Your task to perform on an android device: turn pop-ups on in chrome Image 0: 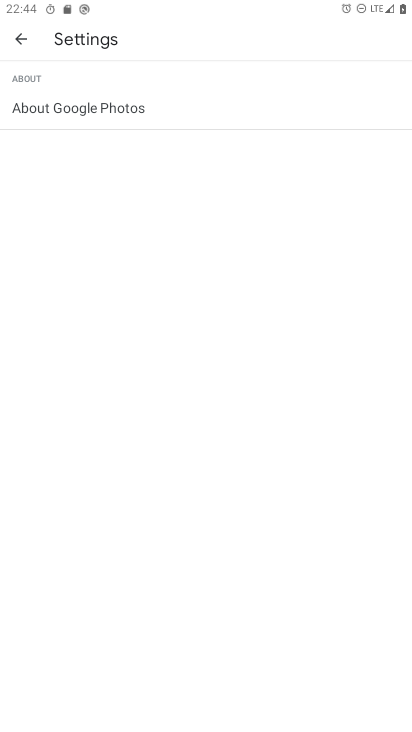
Step 0: drag from (277, 711) to (202, 143)
Your task to perform on an android device: turn pop-ups on in chrome Image 1: 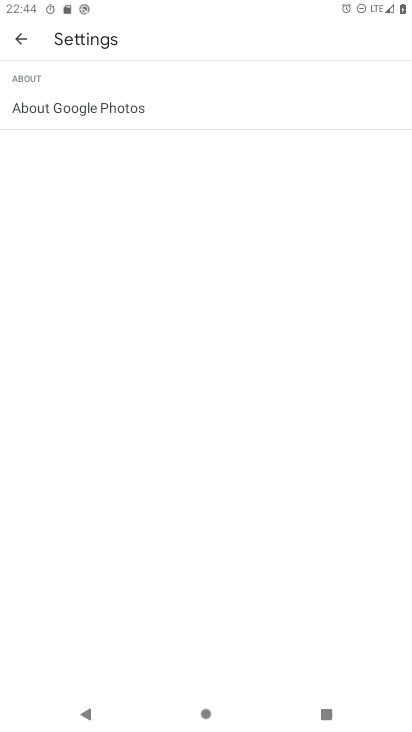
Step 1: press home button
Your task to perform on an android device: turn pop-ups on in chrome Image 2: 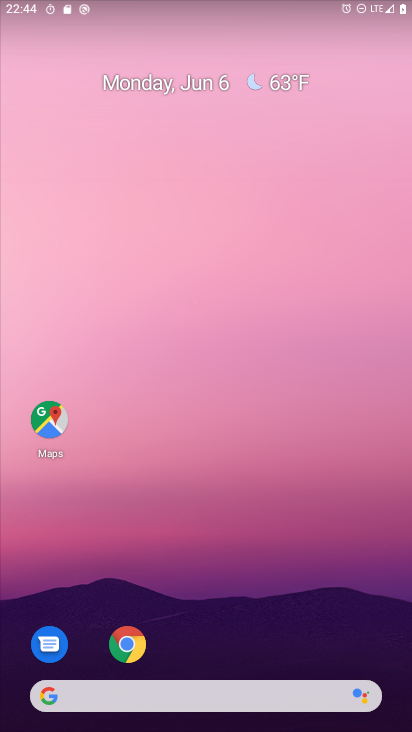
Step 2: drag from (189, 715) to (125, 74)
Your task to perform on an android device: turn pop-ups on in chrome Image 3: 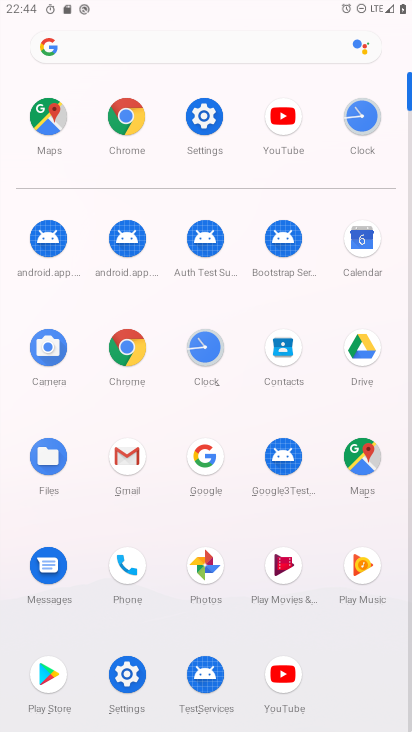
Step 3: click (126, 104)
Your task to perform on an android device: turn pop-ups on in chrome Image 4: 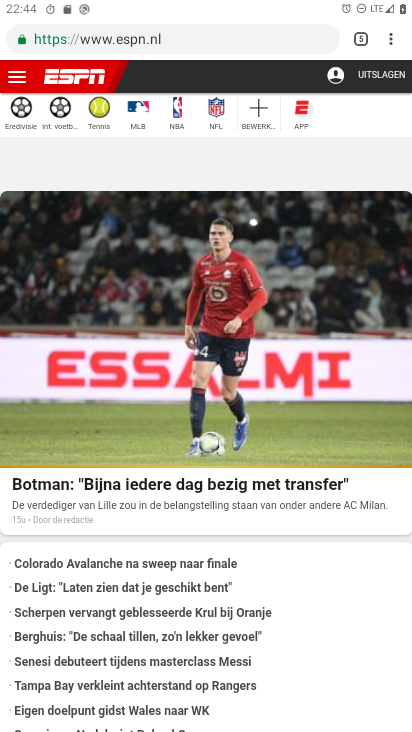
Step 4: click (389, 43)
Your task to perform on an android device: turn pop-ups on in chrome Image 5: 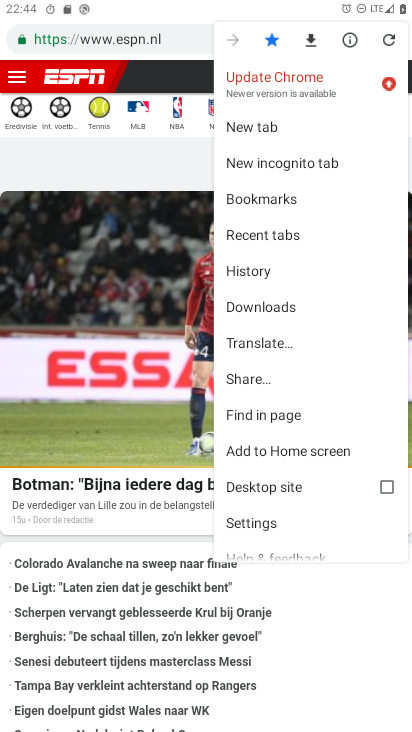
Step 5: click (236, 520)
Your task to perform on an android device: turn pop-ups on in chrome Image 6: 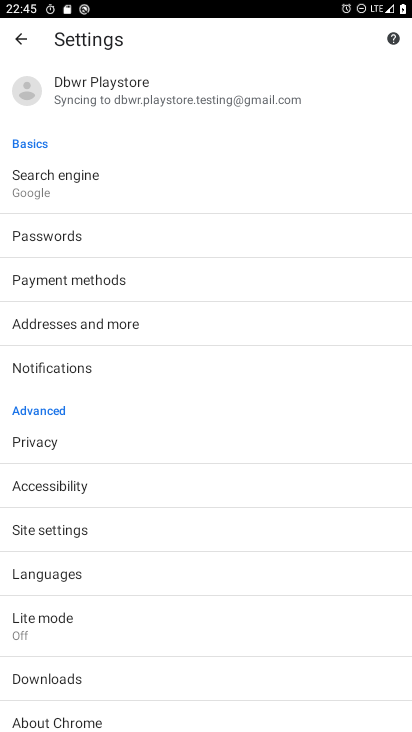
Step 6: click (47, 528)
Your task to perform on an android device: turn pop-ups on in chrome Image 7: 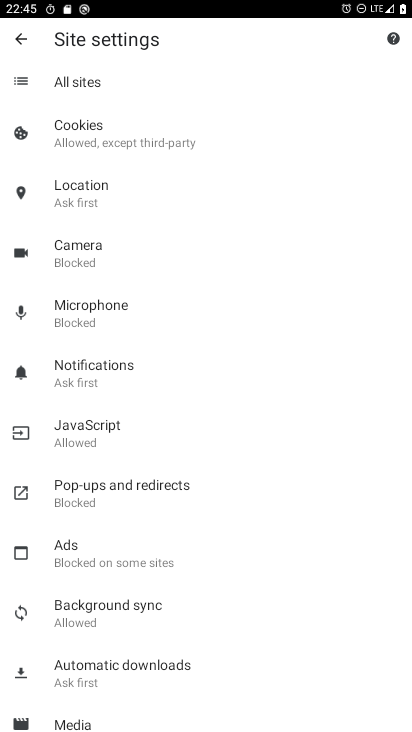
Step 7: click (83, 486)
Your task to perform on an android device: turn pop-ups on in chrome Image 8: 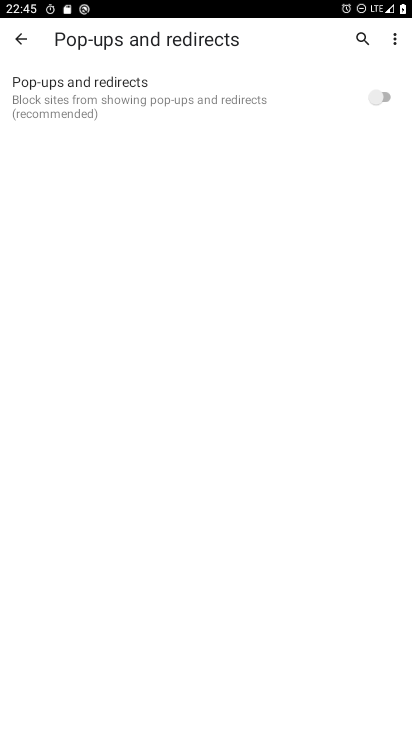
Step 8: click (383, 102)
Your task to perform on an android device: turn pop-ups on in chrome Image 9: 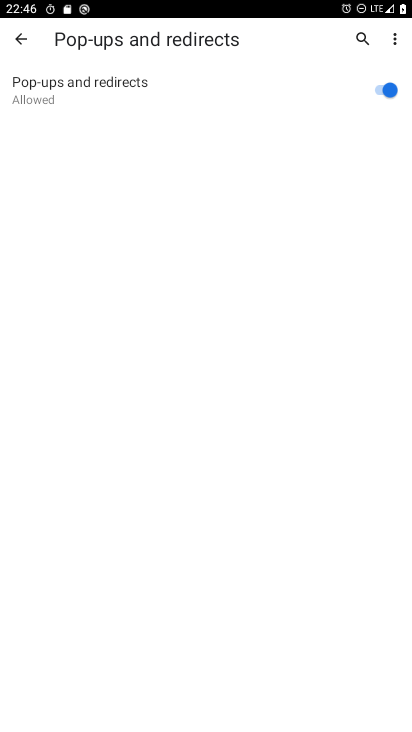
Step 9: task complete